Your task to perform on an android device: open the mobile data screen to see how much data has been used Image 0: 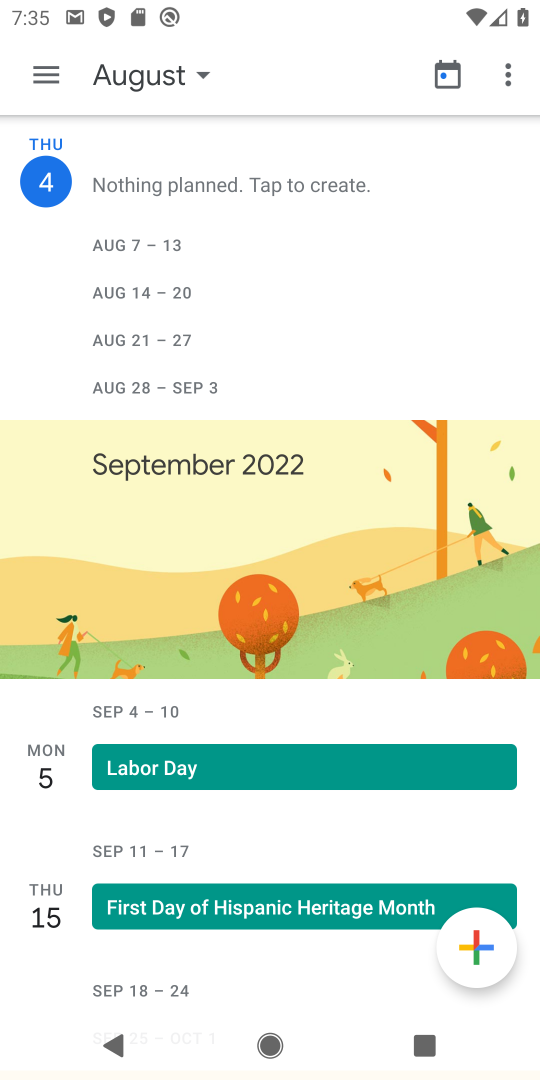
Step 0: press home button
Your task to perform on an android device: open the mobile data screen to see how much data has been used Image 1: 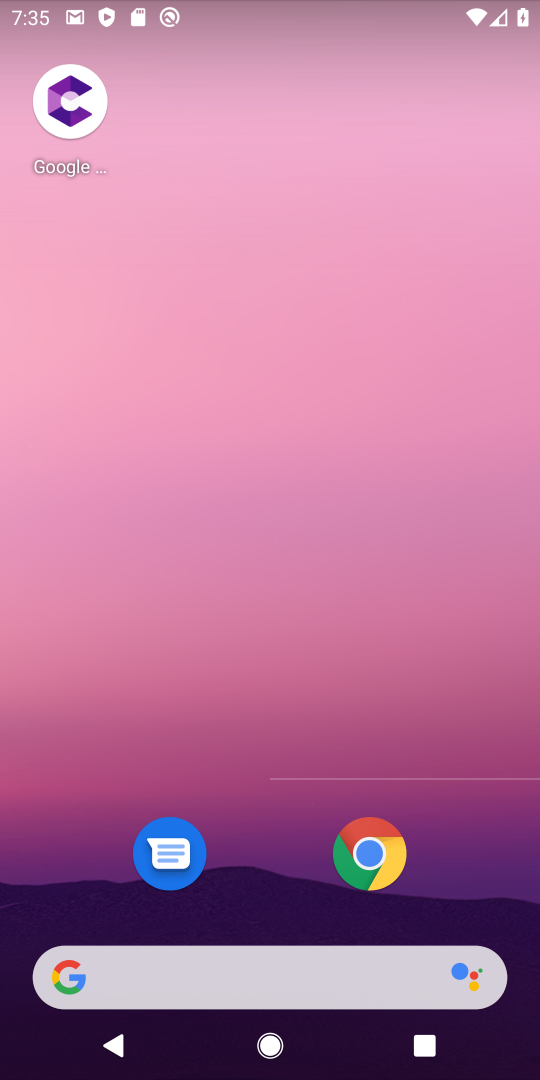
Step 1: drag from (203, 965) to (206, 377)
Your task to perform on an android device: open the mobile data screen to see how much data has been used Image 2: 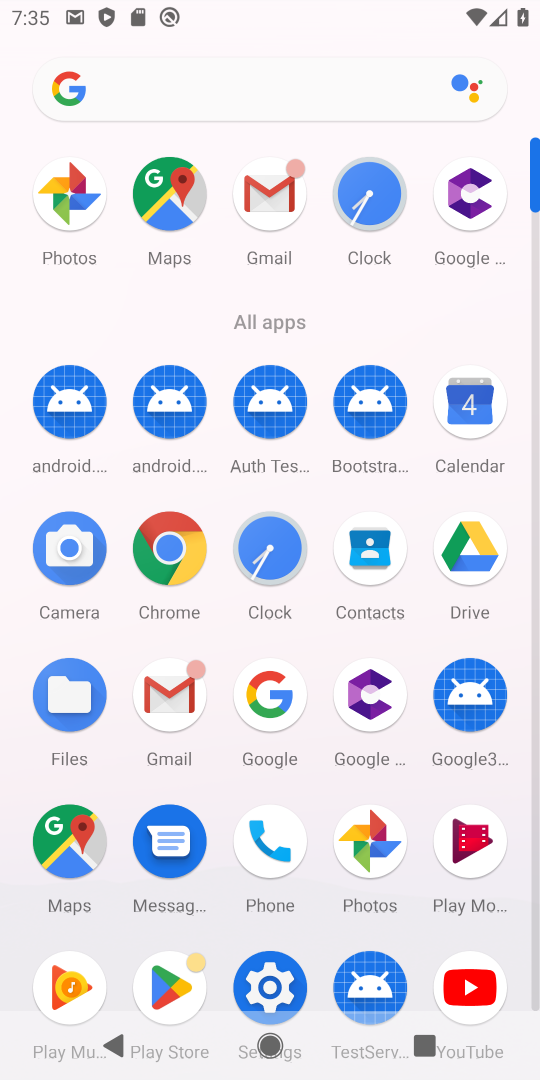
Step 2: click (274, 980)
Your task to perform on an android device: open the mobile data screen to see how much data has been used Image 3: 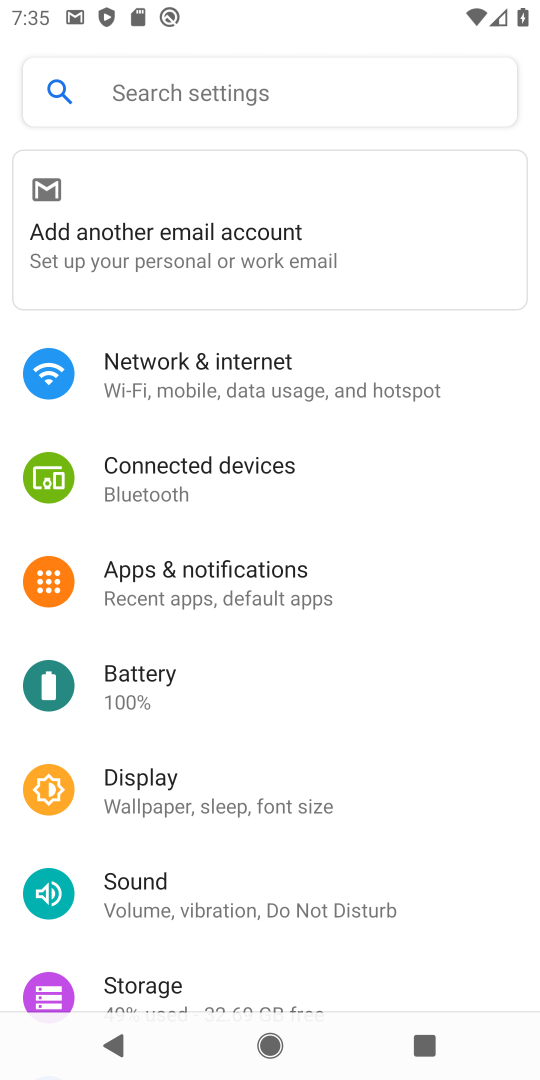
Step 3: click (227, 360)
Your task to perform on an android device: open the mobile data screen to see how much data has been used Image 4: 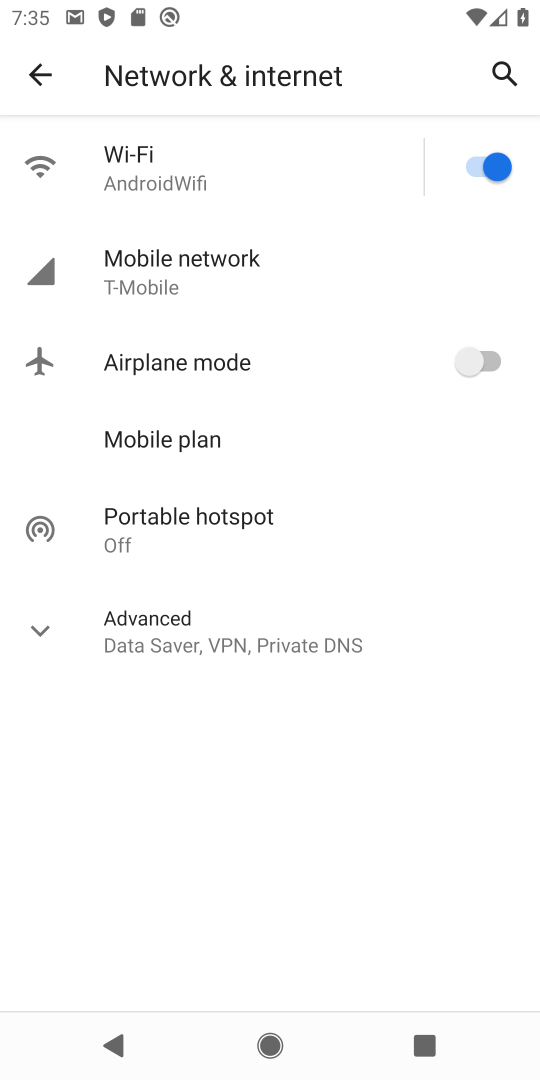
Step 4: click (160, 264)
Your task to perform on an android device: open the mobile data screen to see how much data has been used Image 5: 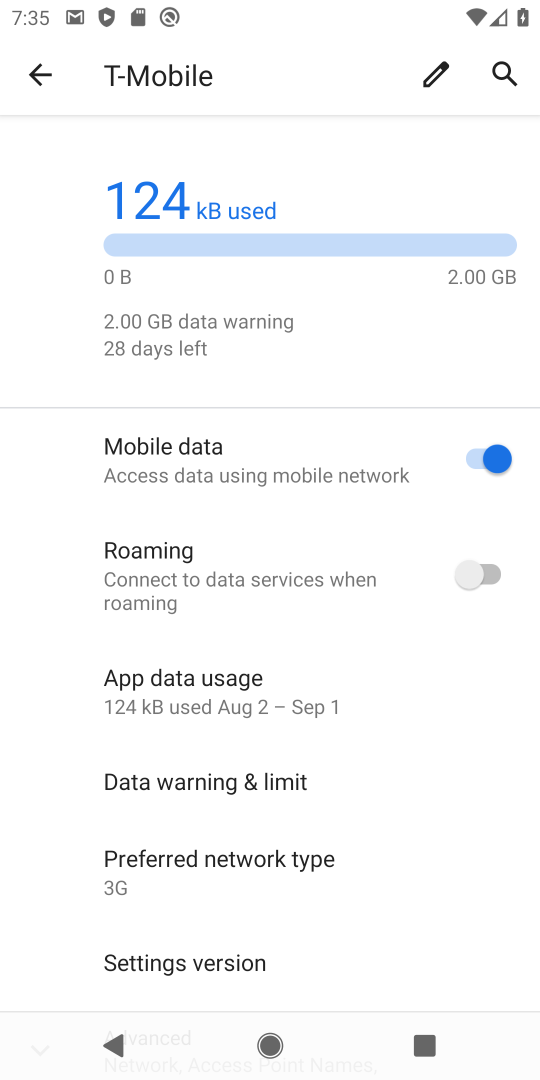
Step 5: task complete